Your task to perform on an android device: Open Google Chrome Image 0: 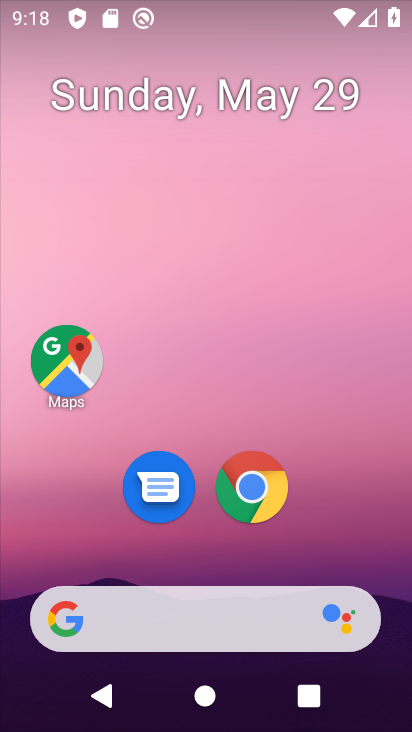
Step 0: click (267, 489)
Your task to perform on an android device: Open Google Chrome Image 1: 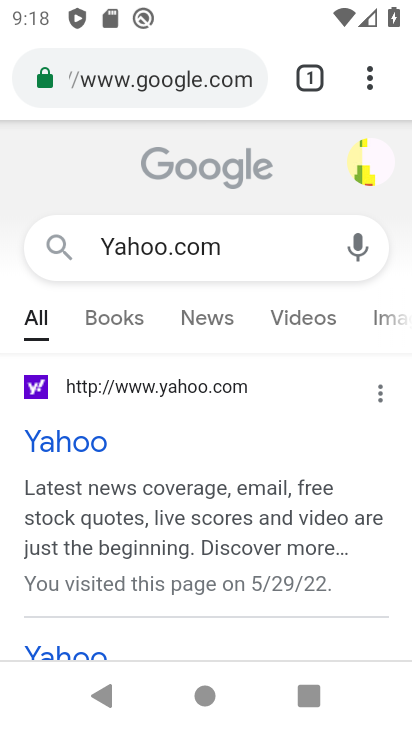
Step 1: task complete